Your task to perform on an android device: see tabs open on other devices in the chrome app Image 0: 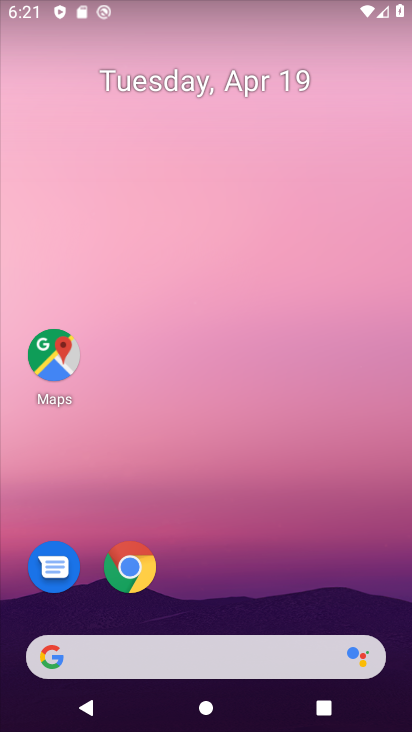
Step 0: click (106, 577)
Your task to perform on an android device: see tabs open on other devices in the chrome app Image 1: 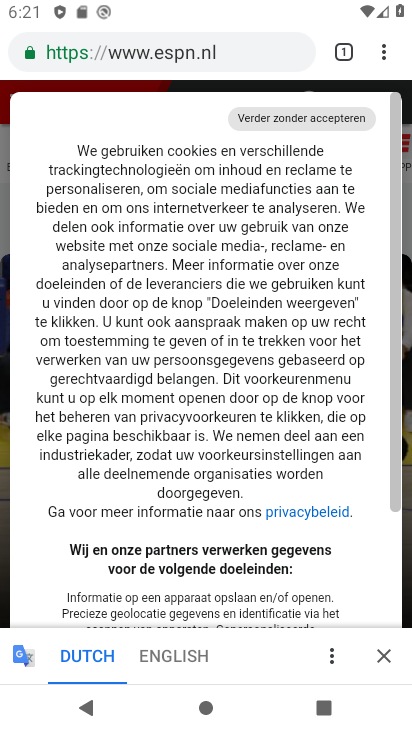
Step 1: task complete